Your task to perform on an android device: turn on the 12-hour format for clock Image 0: 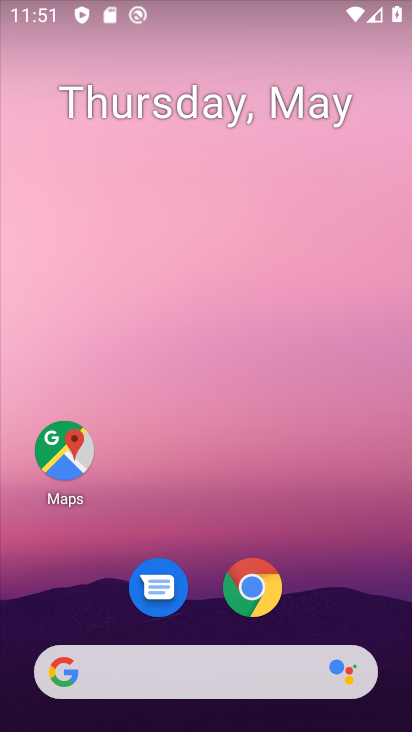
Step 0: drag from (202, 551) to (279, 91)
Your task to perform on an android device: turn on the 12-hour format for clock Image 1: 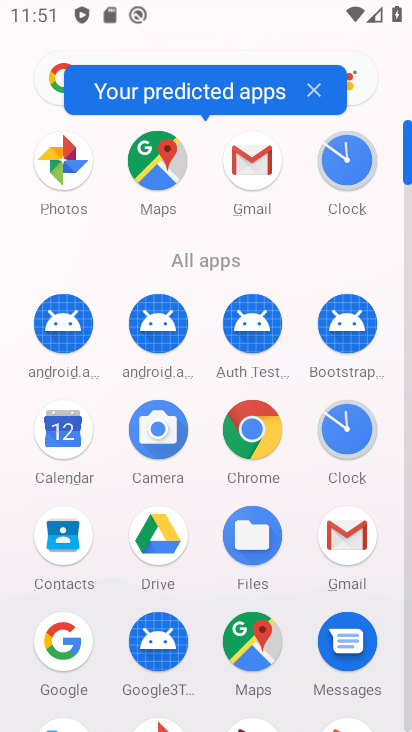
Step 1: click (359, 436)
Your task to perform on an android device: turn on the 12-hour format for clock Image 2: 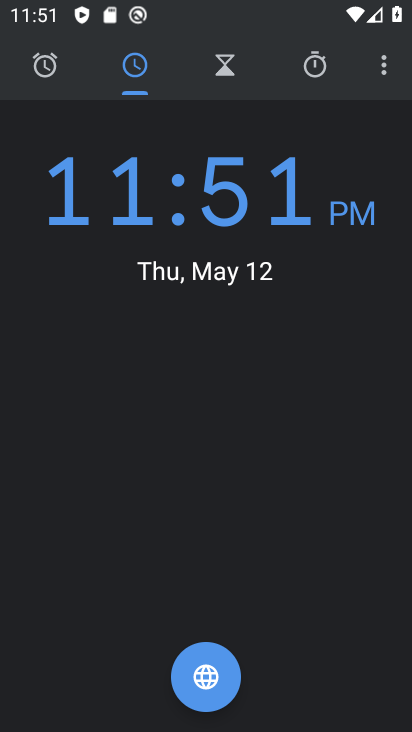
Step 2: click (384, 74)
Your task to perform on an android device: turn on the 12-hour format for clock Image 3: 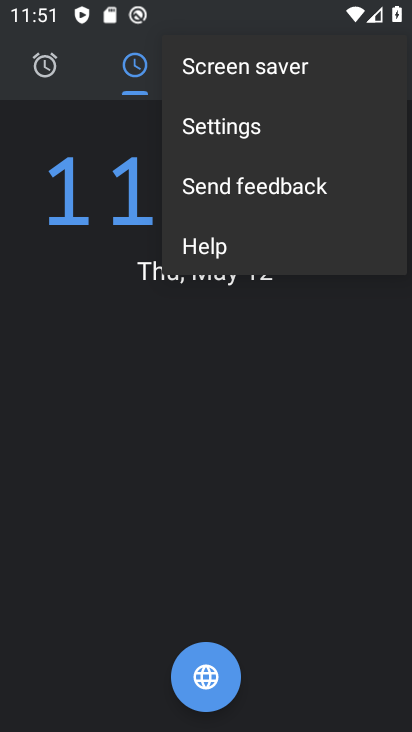
Step 3: click (235, 138)
Your task to perform on an android device: turn on the 12-hour format for clock Image 4: 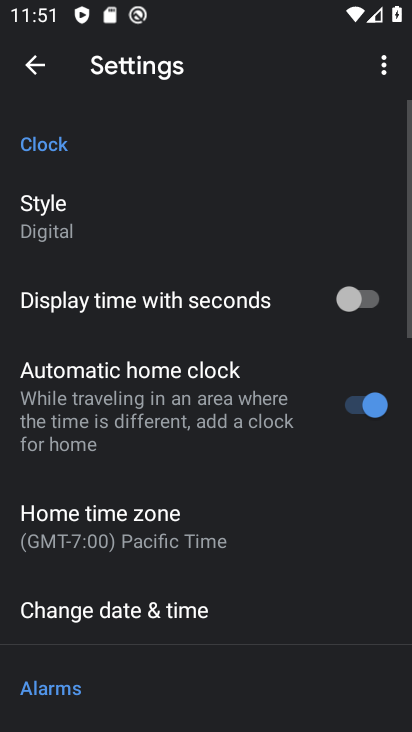
Step 4: drag from (210, 637) to (221, 350)
Your task to perform on an android device: turn on the 12-hour format for clock Image 5: 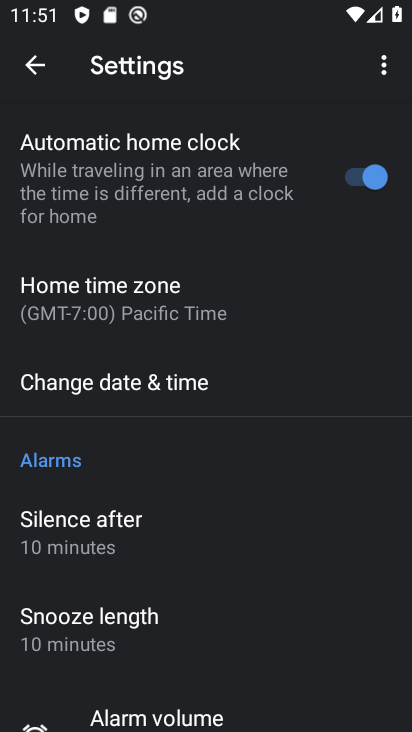
Step 5: click (155, 393)
Your task to perform on an android device: turn on the 12-hour format for clock Image 6: 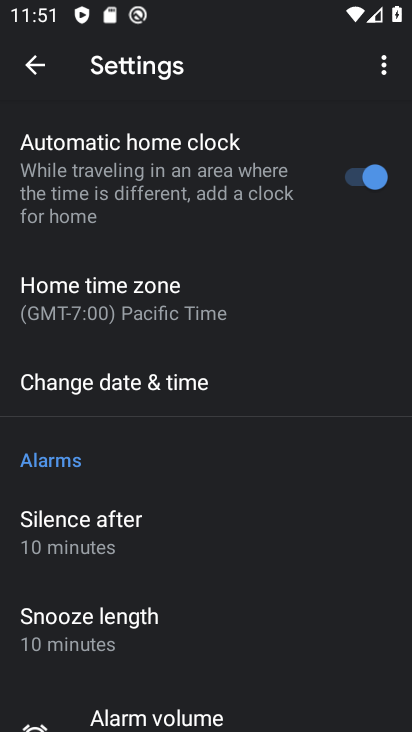
Step 6: task complete